Your task to perform on an android device: uninstall "Yahoo Mail" Image 0: 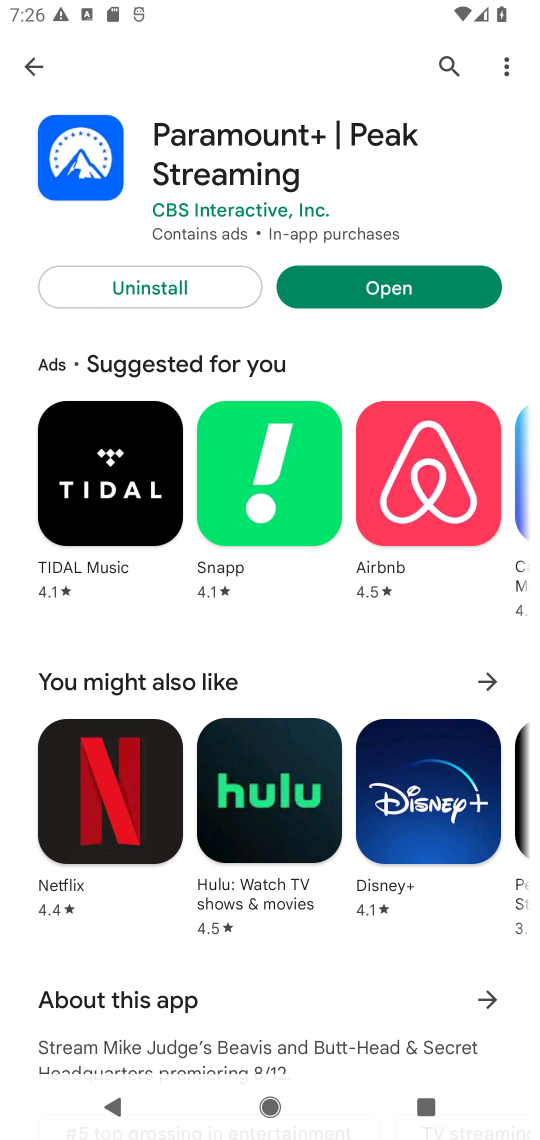
Step 0: press home button
Your task to perform on an android device: uninstall "Yahoo Mail" Image 1: 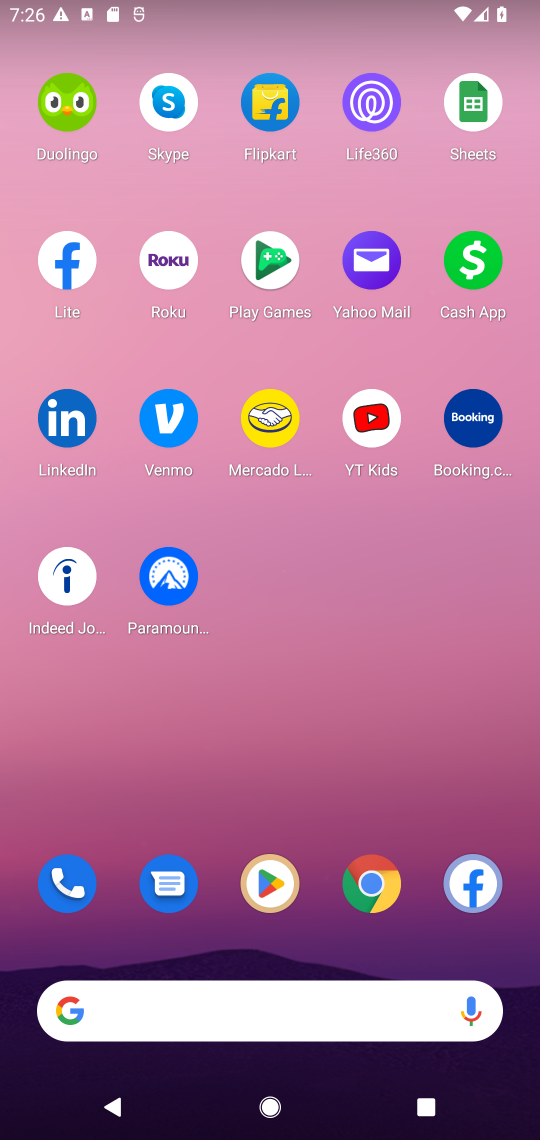
Step 1: drag from (325, 902) to (325, 103)
Your task to perform on an android device: uninstall "Yahoo Mail" Image 2: 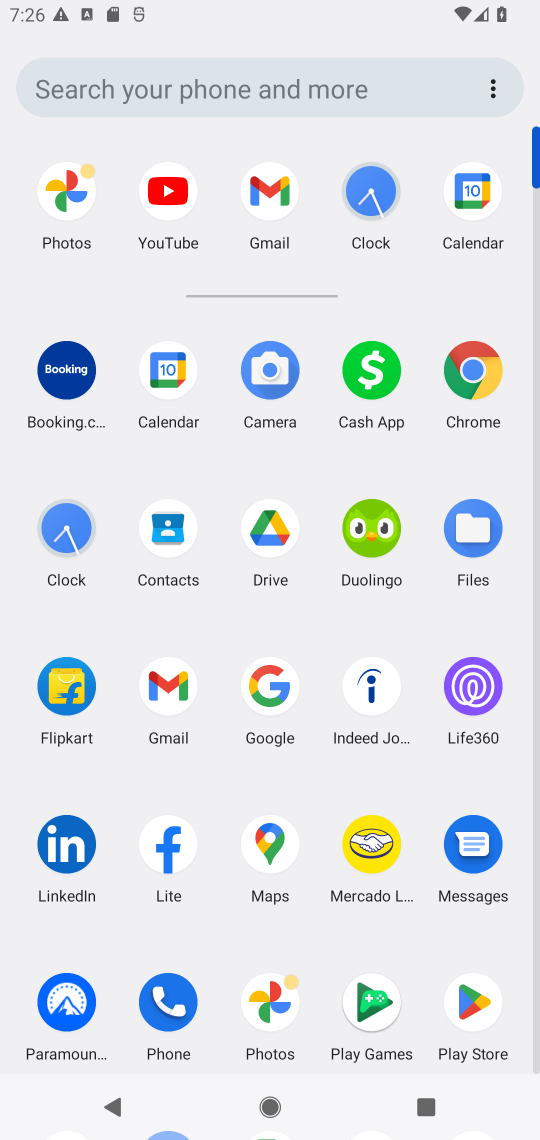
Step 2: click (473, 978)
Your task to perform on an android device: uninstall "Yahoo Mail" Image 3: 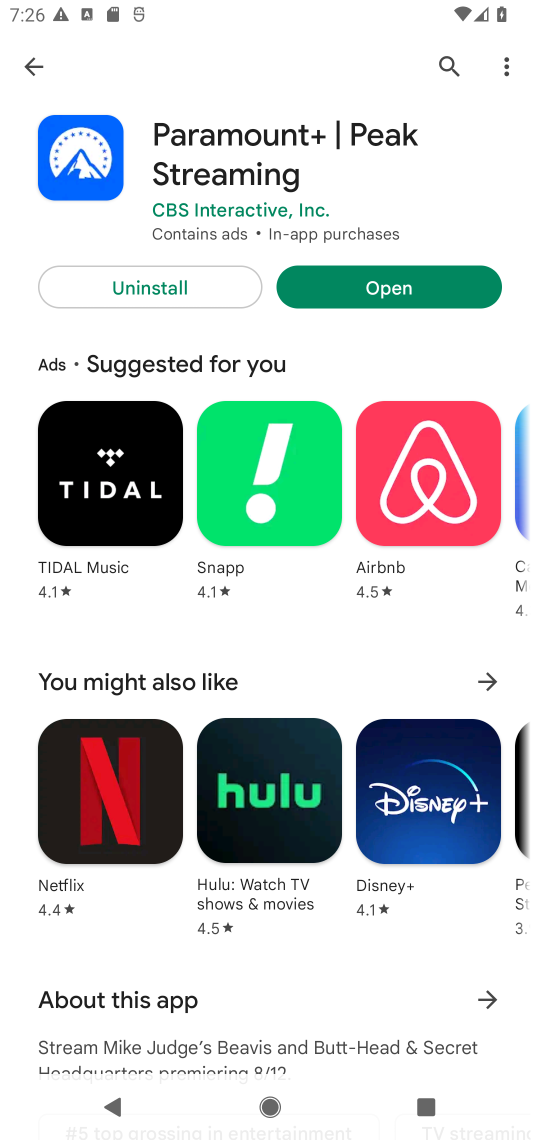
Step 3: click (448, 65)
Your task to perform on an android device: uninstall "Yahoo Mail" Image 4: 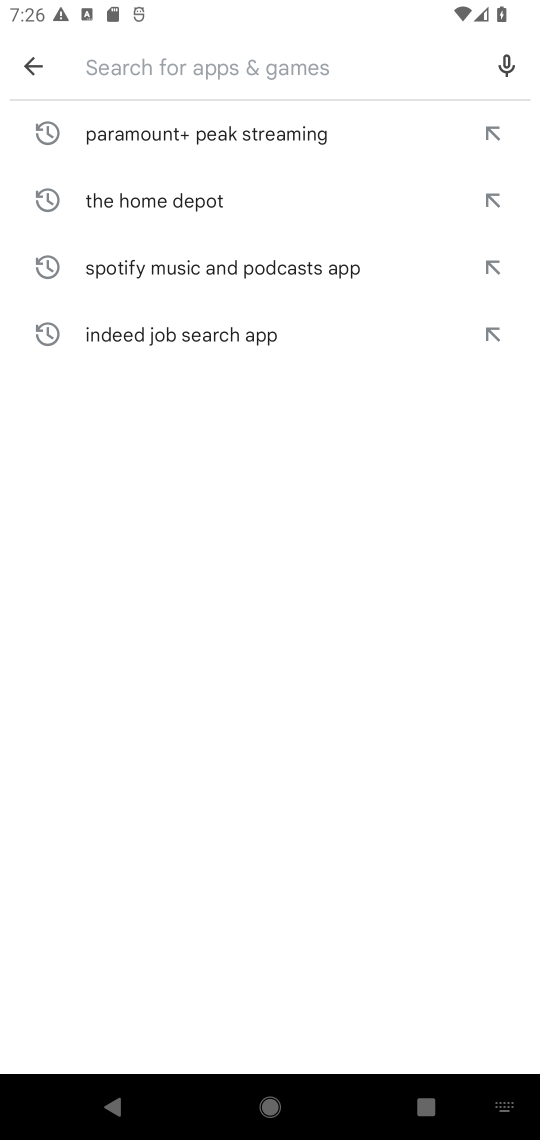
Step 4: type "Yahoo Mail"
Your task to perform on an android device: uninstall "Yahoo Mail" Image 5: 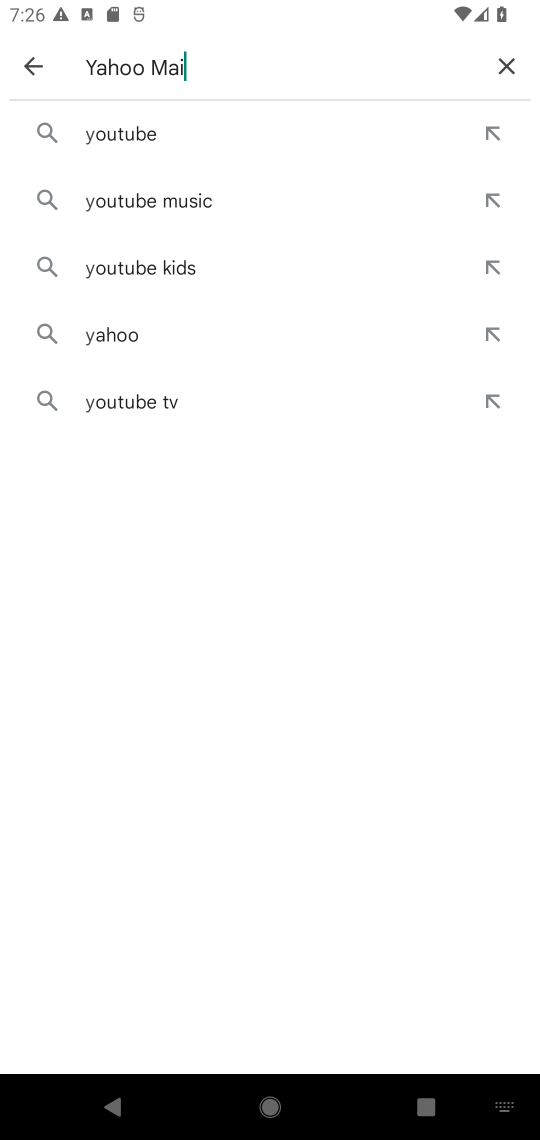
Step 5: type ""
Your task to perform on an android device: uninstall "Yahoo Mail" Image 6: 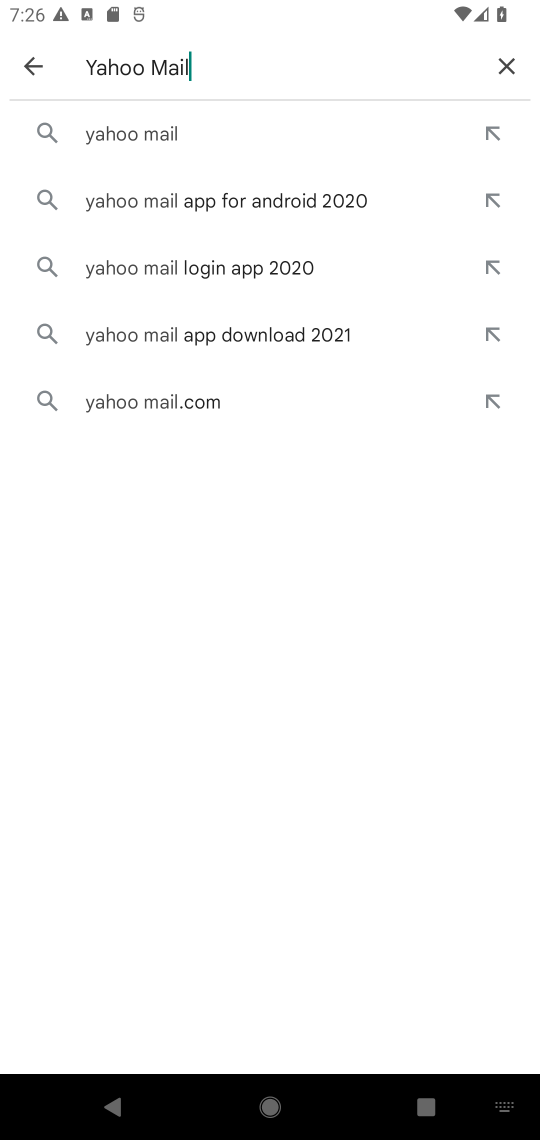
Step 6: click (133, 140)
Your task to perform on an android device: uninstall "Yahoo Mail" Image 7: 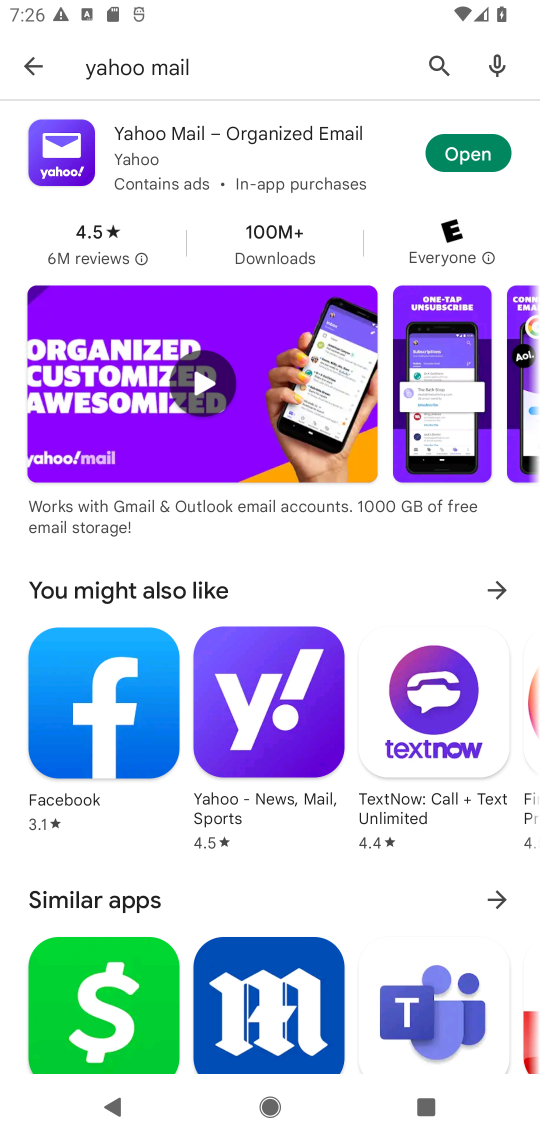
Step 7: click (195, 148)
Your task to perform on an android device: uninstall "Yahoo Mail" Image 8: 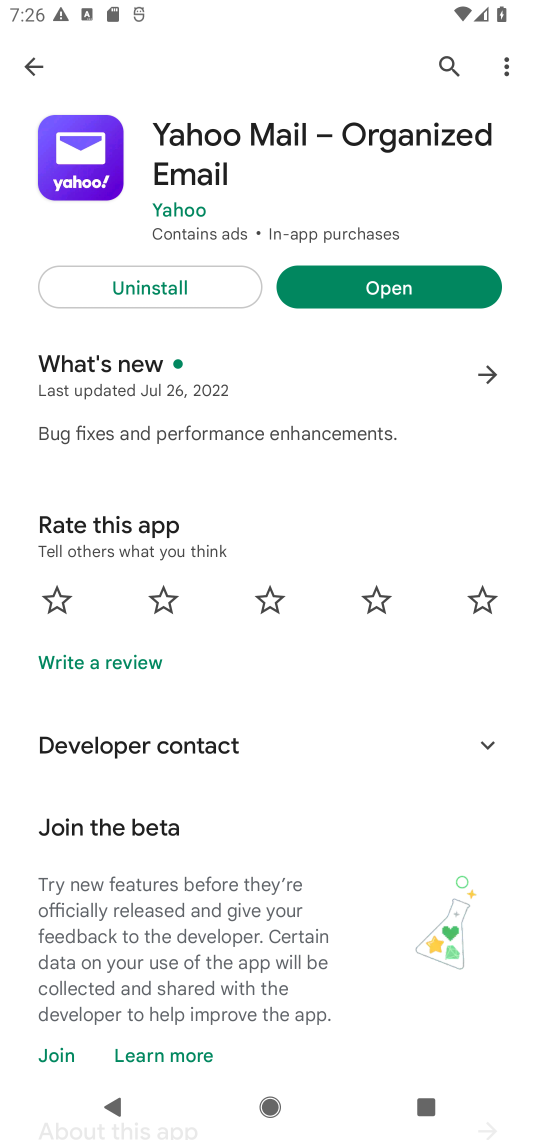
Step 8: task complete